Your task to perform on an android device: open chrome and create a bookmark for the current page Image 0: 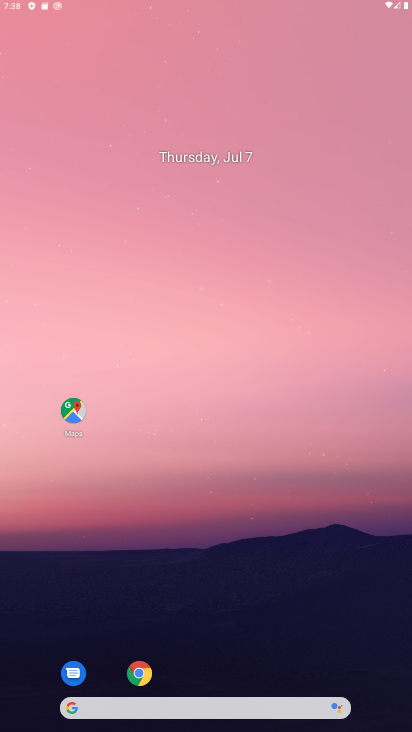
Step 0: click (189, 189)
Your task to perform on an android device: open chrome and create a bookmark for the current page Image 1: 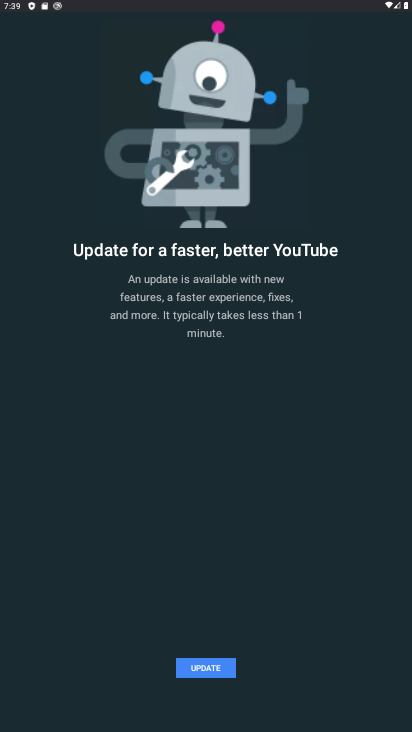
Step 1: press home button
Your task to perform on an android device: open chrome and create a bookmark for the current page Image 2: 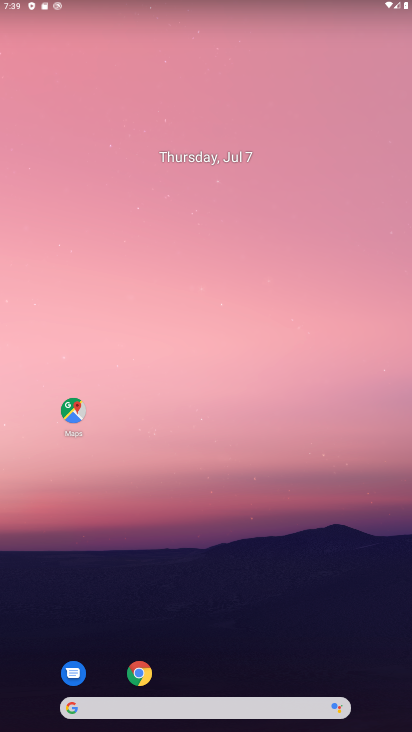
Step 2: click (135, 669)
Your task to perform on an android device: open chrome and create a bookmark for the current page Image 3: 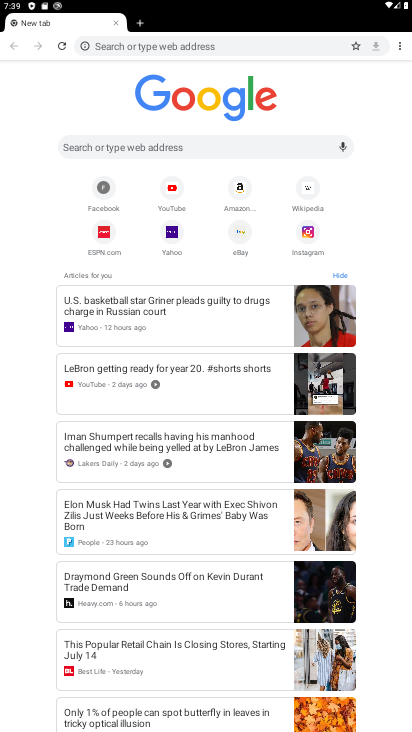
Step 3: click (354, 43)
Your task to perform on an android device: open chrome and create a bookmark for the current page Image 4: 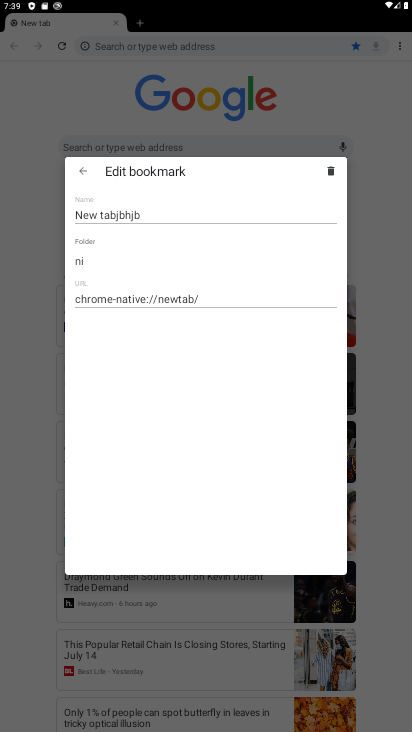
Step 4: click (81, 170)
Your task to perform on an android device: open chrome and create a bookmark for the current page Image 5: 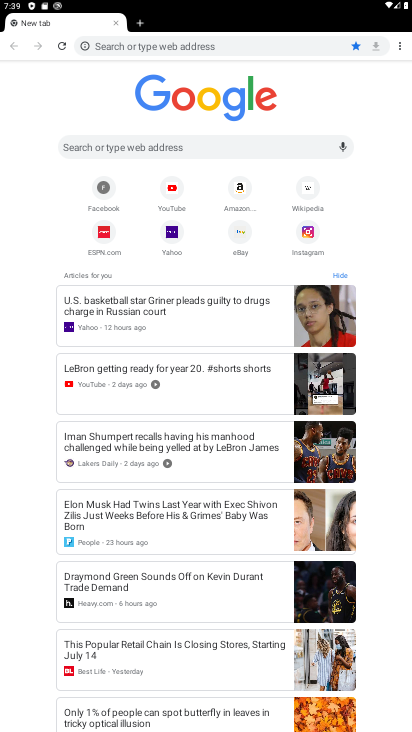
Step 5: click (402, 47)
Your task to perform on an android device: open chrome and create a bookmark for the current page Image 6: 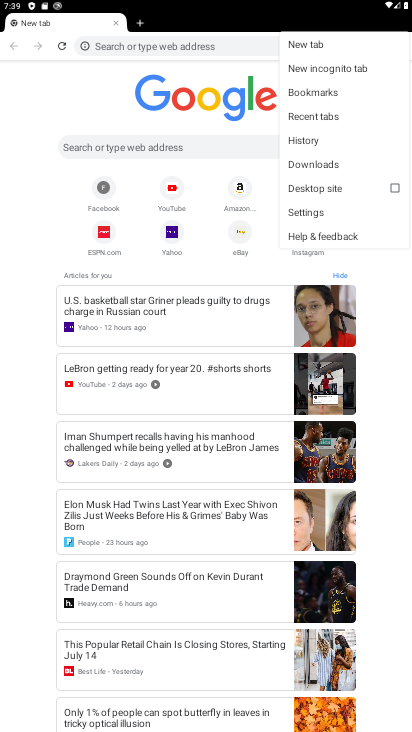
Step 6: click (338, 93)
Your task to perform on an android device: open chrome and create a bookmark for the current page Image 7: 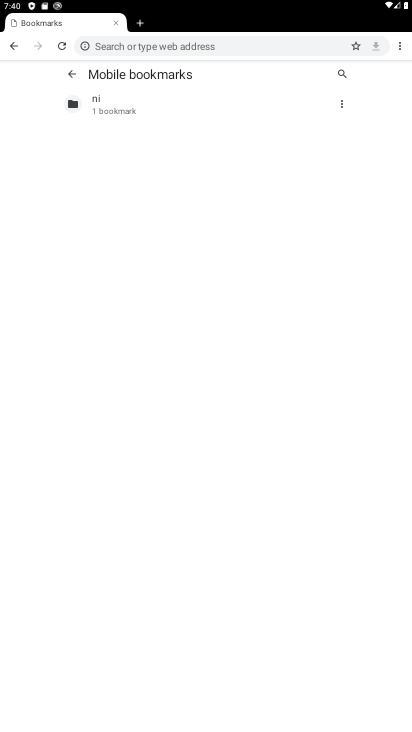
Step 7: click (13, 45)
Your task to perform on an android device: open chrome and create a bookmark for the current page Image 8: 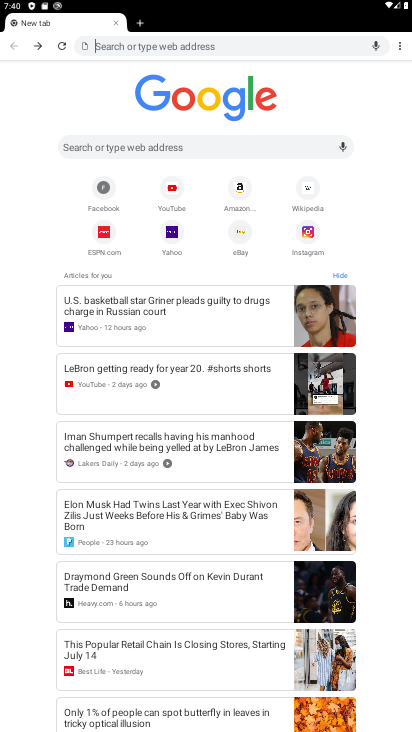
Step 8: click (409, 51)
Your task to perform on an android device: open chrome and create a bookmark for the current page Image 9: 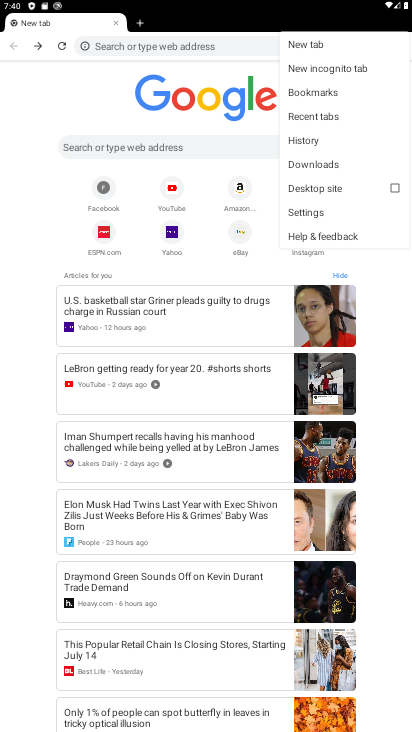
Step 9: task complete